Your task to perform on an android device: Open Google Maps Image 0: 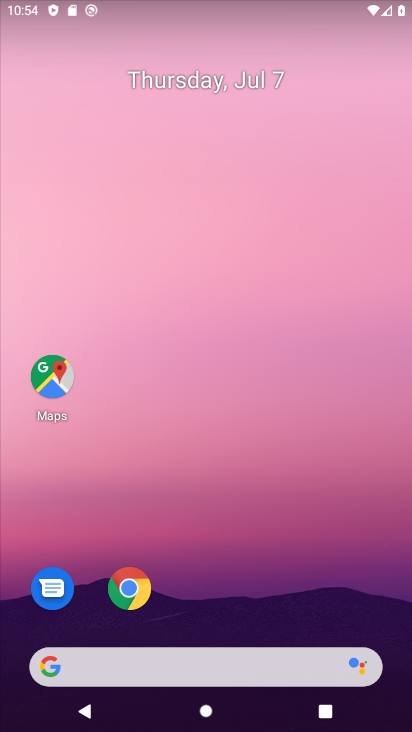
Step 0: click (45, 382)
Your task to perform on an android device: Open Google Maps Image 1: 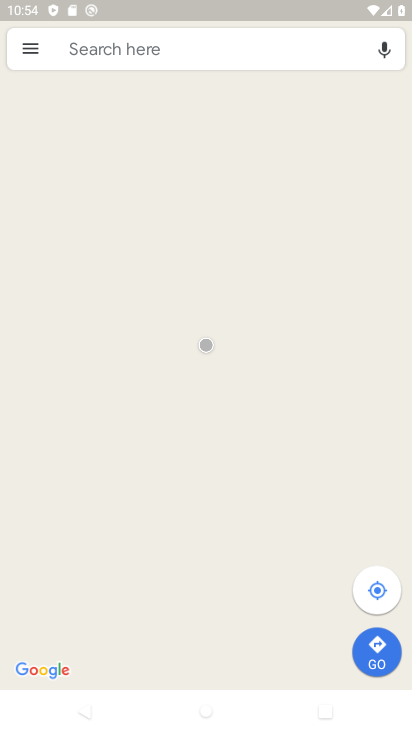
Step 1: task complete